Your task to perform on an android device: toggle notification dots Image 0: 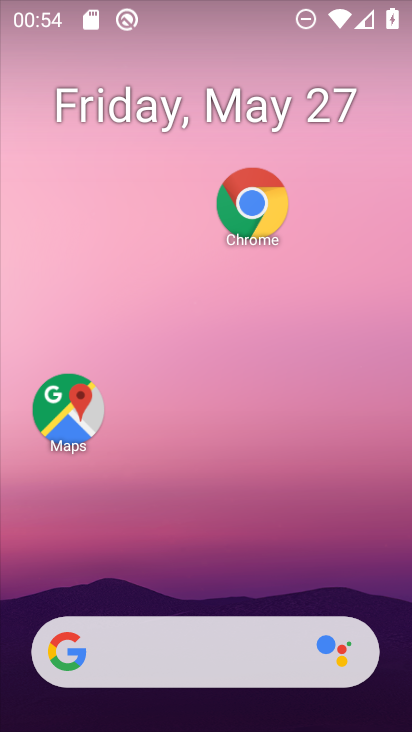
Step 0: drag from (167, 600) to (249, 29)
Your task to perform on an android device: toggle notification dots Image 1: 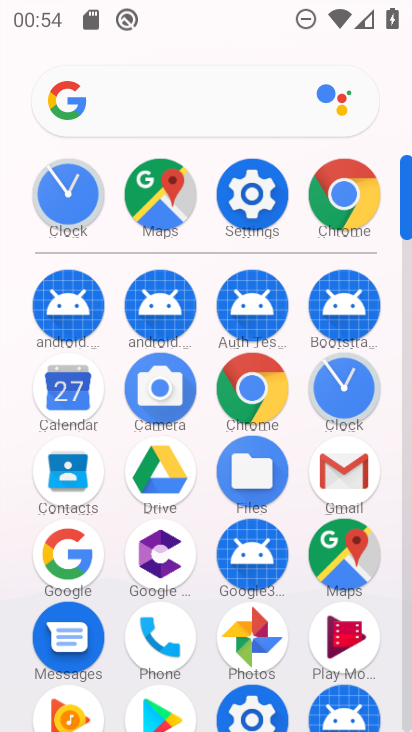
Step 1: click (231, 206)
Your task to perform on an android device: toggle notification dots Image 2: 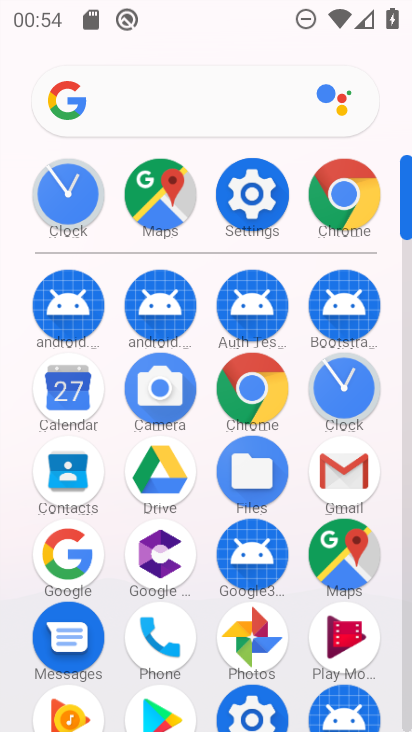
Step 2: click (231, 206)
Your task to perform on an android device: toggle notification dots Image 3: 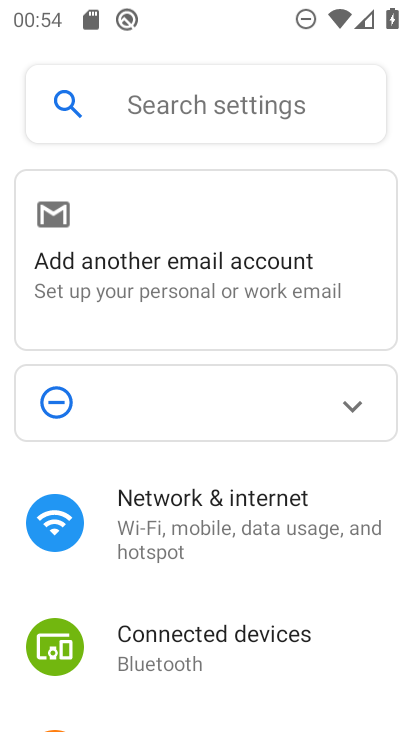
Step 3: drag from (294, 611) to (288, 89)
Your task to perform on an android device: toggle notification dots Image 4: 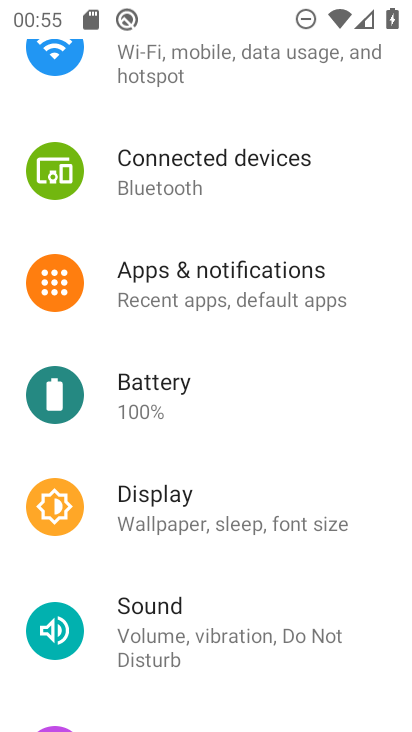
Step 4: click (249, 278)
Your task to perform on an android device: toggle notification dots Image 5: 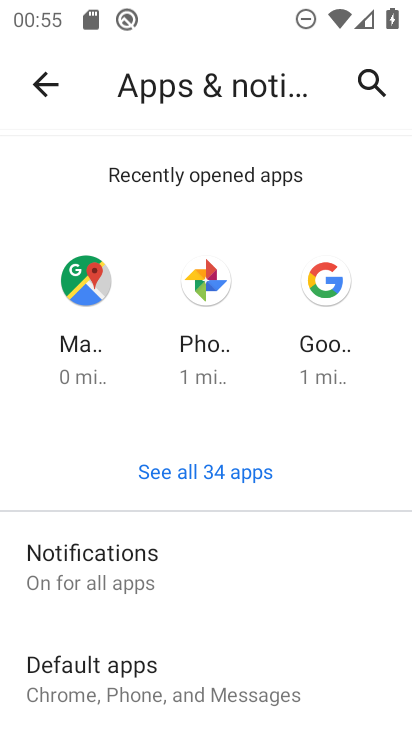
Step 5: click (161, 587)
Your task to perform on an android device: toggle notification dots Image 6: 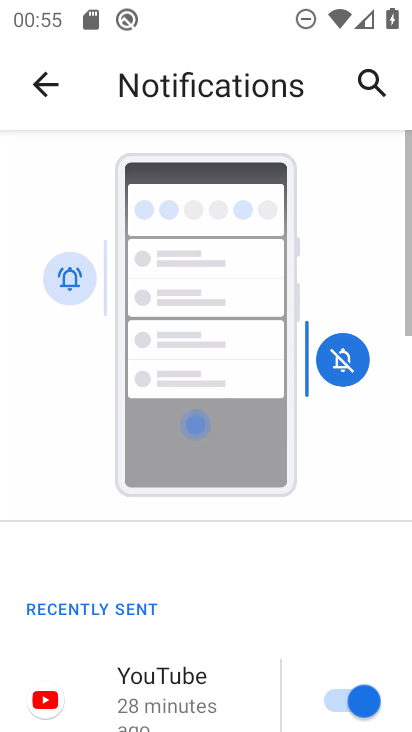
Step 6: drag from (161, 583) to (199, 172)
Your task to perform on an android device: toggle notification dots Image 7: 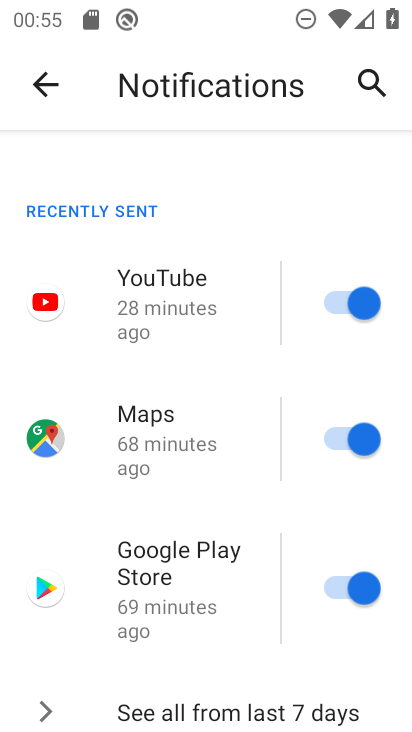
Step 7: drag from (249, 644) to (272, 336)
Your task to perform on an android device: toggle notification dots Image 8: 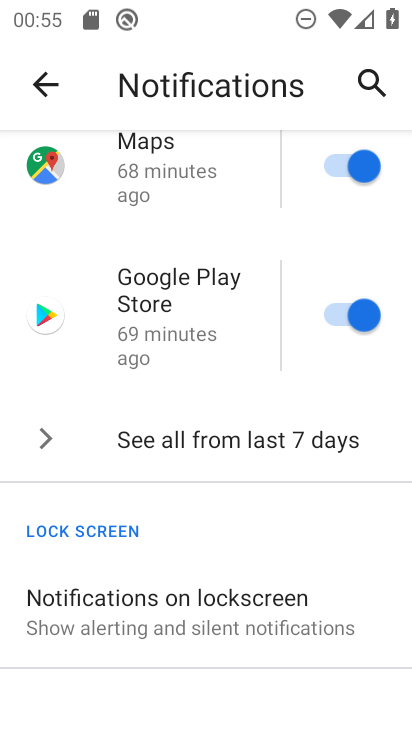
Step 8: drag from (284, 537) to (277, 282)
Your task to perform on an android device: toggle notification dots Image 9: 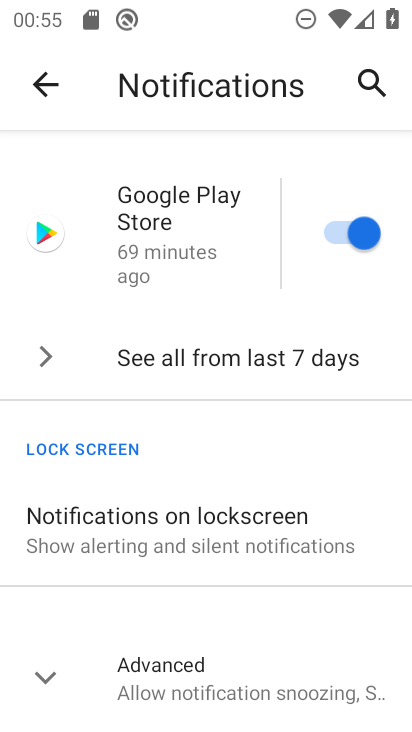
Step 9: click (242, 687)
Your task to perform on an android device: toggle notification dots Image 10: 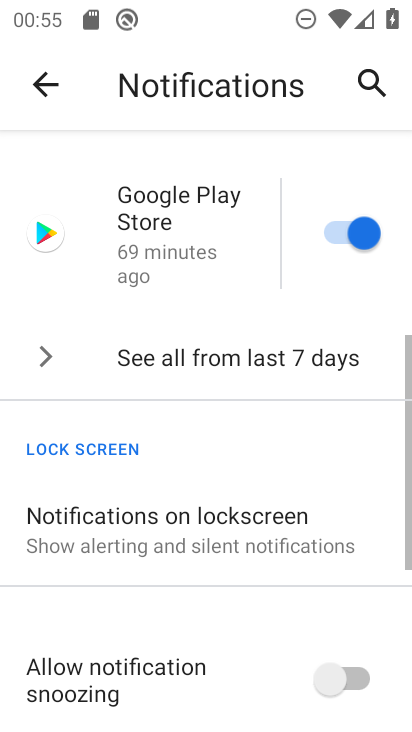
Step 10: drag from (281, 589) to (271, 340)
Your task to perform on an android device: toggle notification dots Image 11: 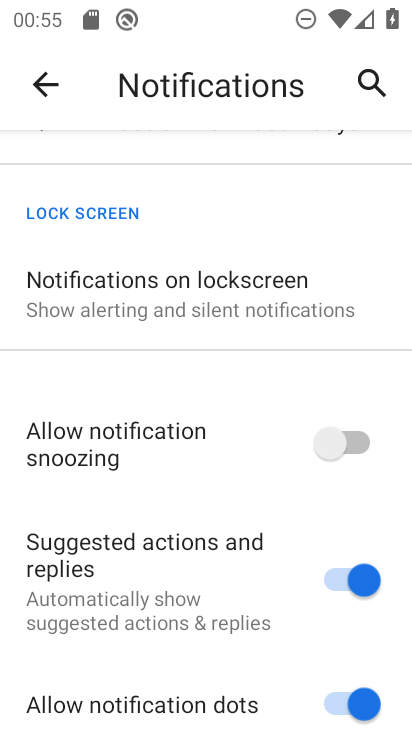
Step 11: click (374, 693)
Your task to perform on an android device: toggle notification dots Image 12: 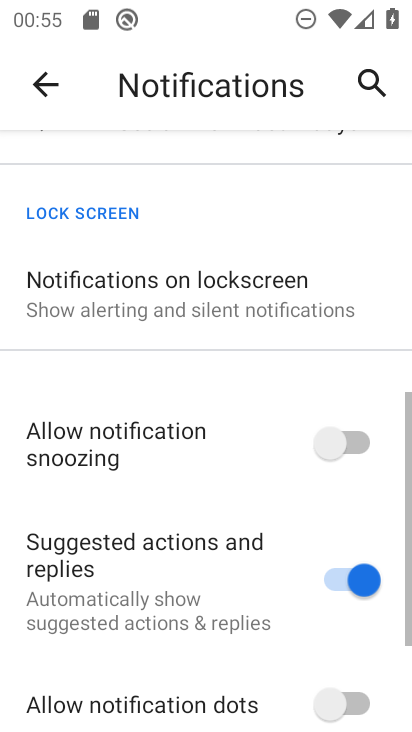
Step 12: task complete